Your task to perform on an android device: Open Chrome and go to the settings page Image 0: 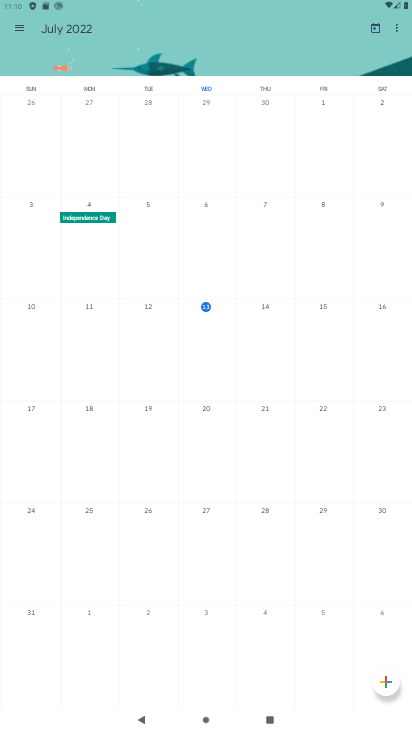
Step 0: press home button
Your task to perform on an android device: Open Chrome and go to the settings page Image 1: 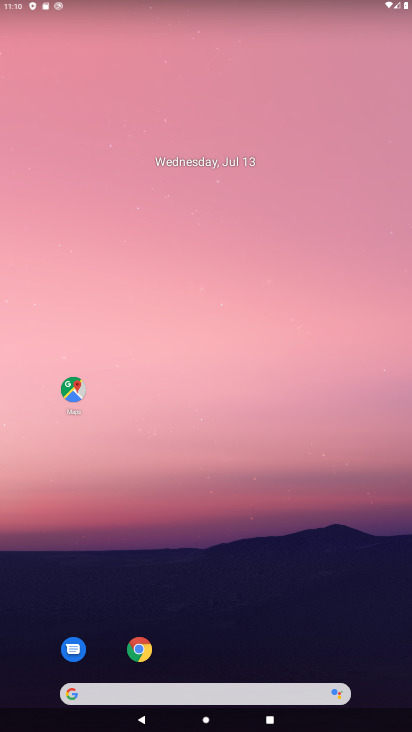
Step 1: drag from (223, 592) to (236, 43)
Your task to perform on an android device: Open Chrome and go to the settings page Image 2: 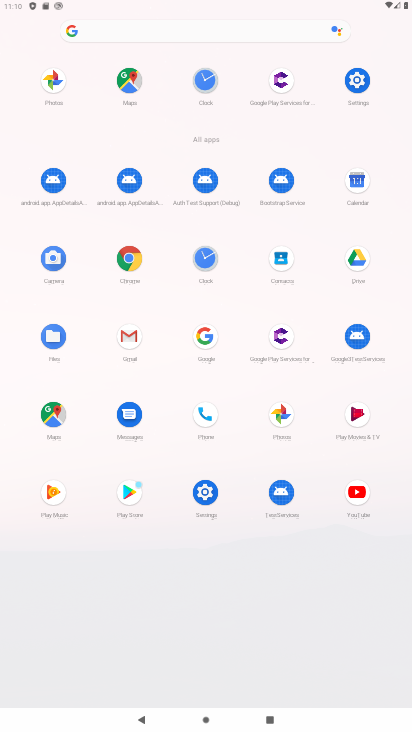
Step 2: click (128, 264)
Your task to perform on an android device: Open Chrome and go to the settings page Image 3: 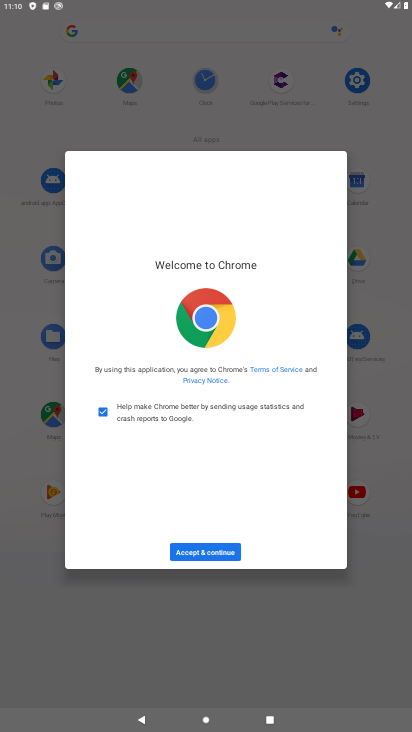
Step 3: click (214, 547)
Your task to perform on an android device: Open Chrome and go to the settings page Image 4: 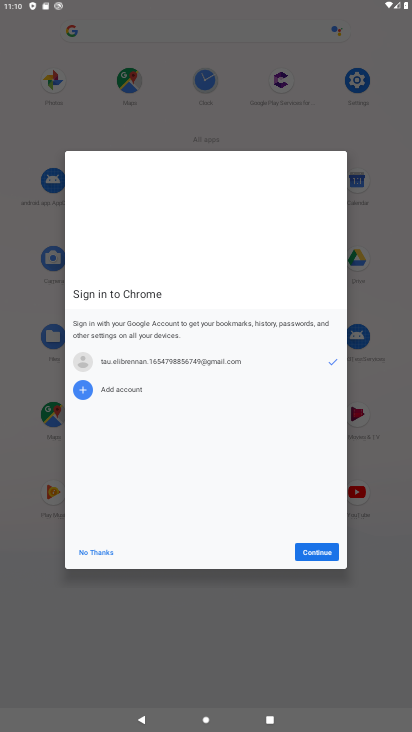
Step 4: click (315, 547)
Your task to perform on an android device: Open Chrome and go to the settings page Image 5: 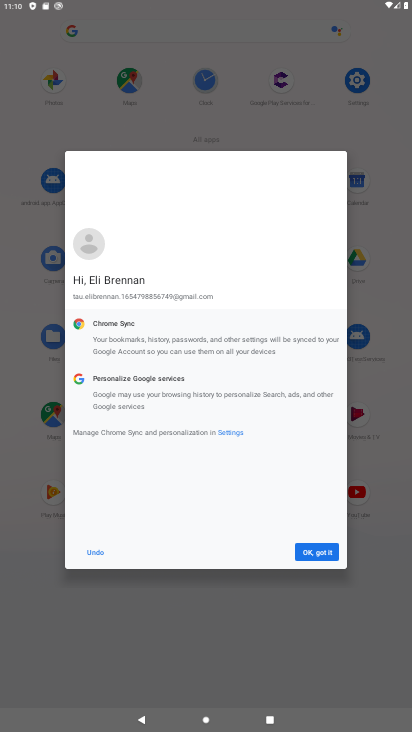
Step 5: click (316, 547)
Your task to perform on an android device: Open Chrome and go to the settings page Image 6: 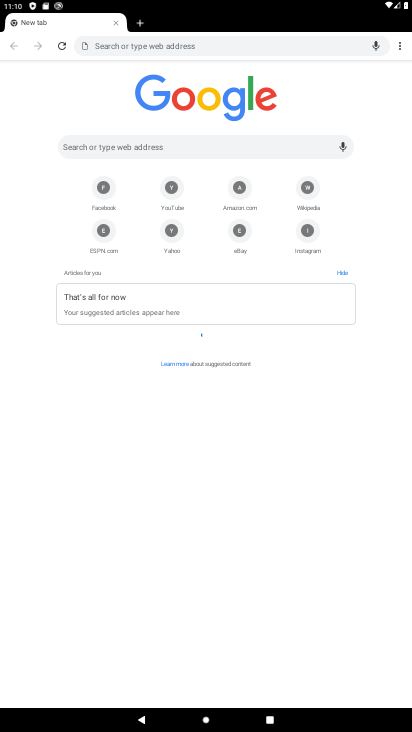
Step 6: click (396, 43)
Your task to perform on an android device: Open Chrome and go to the settings page Image 7: 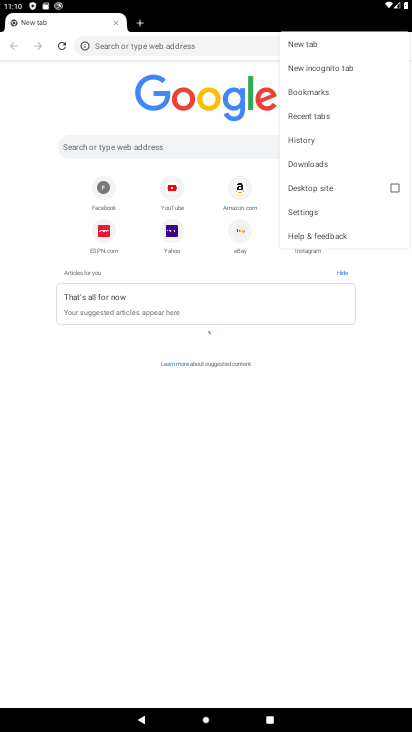
Step 7: click (307, 212)
Your task to perform on an android device: Open Chrome and go to the settings page Image 8: 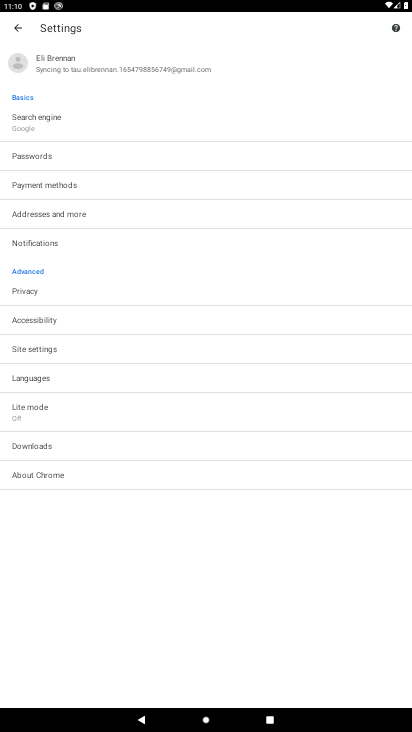
Step 8: task complete